Your task to perform on an android device: delete a single message in the gmail app Image 0: 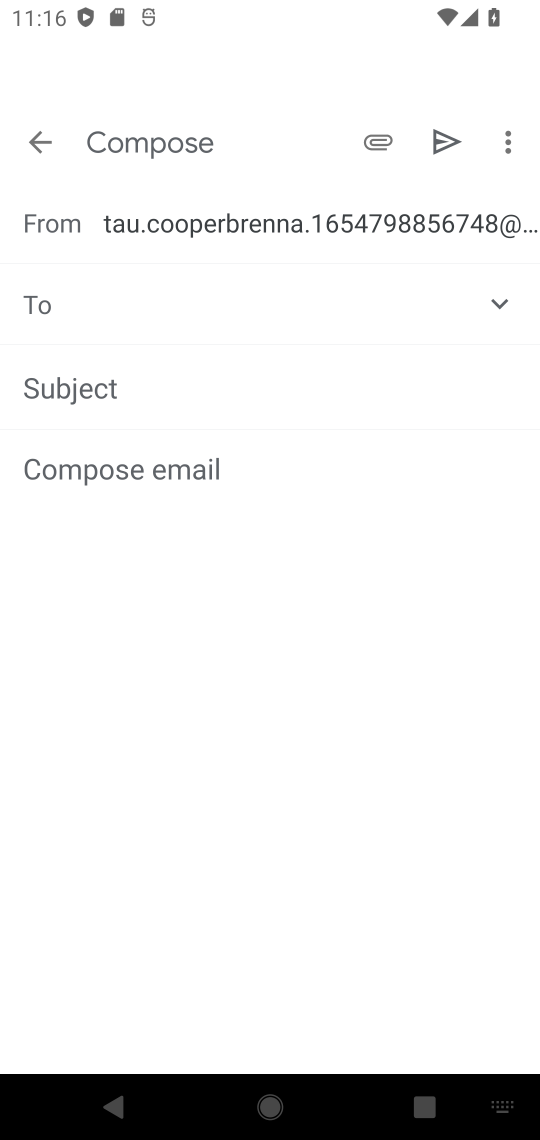
Step 0: press home button
Your task to perform on an android device: delete a single message in the gmail app Image 1: 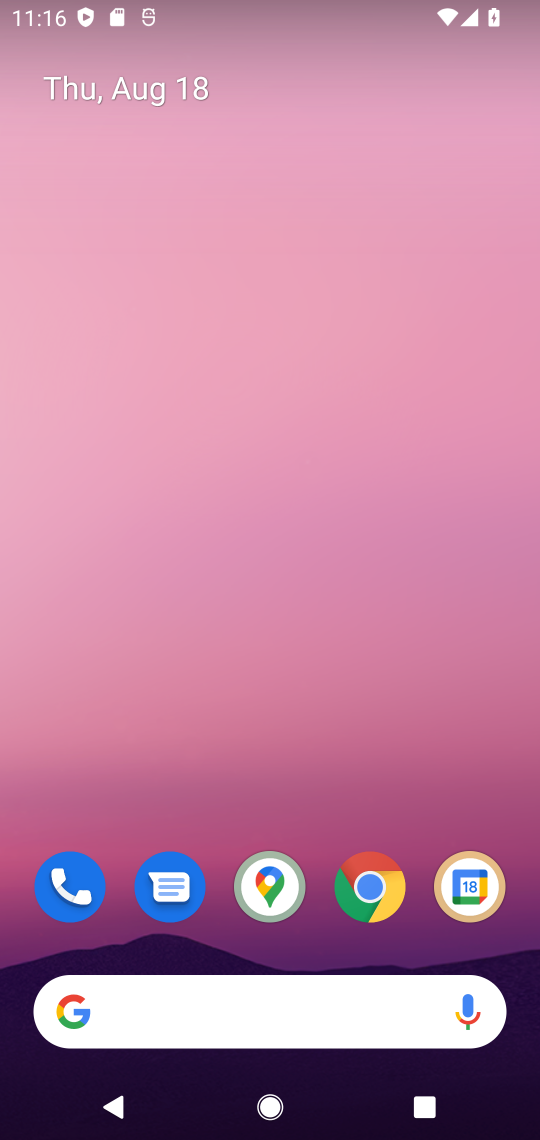
Step 1: drag from (81, 1065) to (286, 477)
Your task to perform on an android device: delete a single message in the gmail app Image 2: 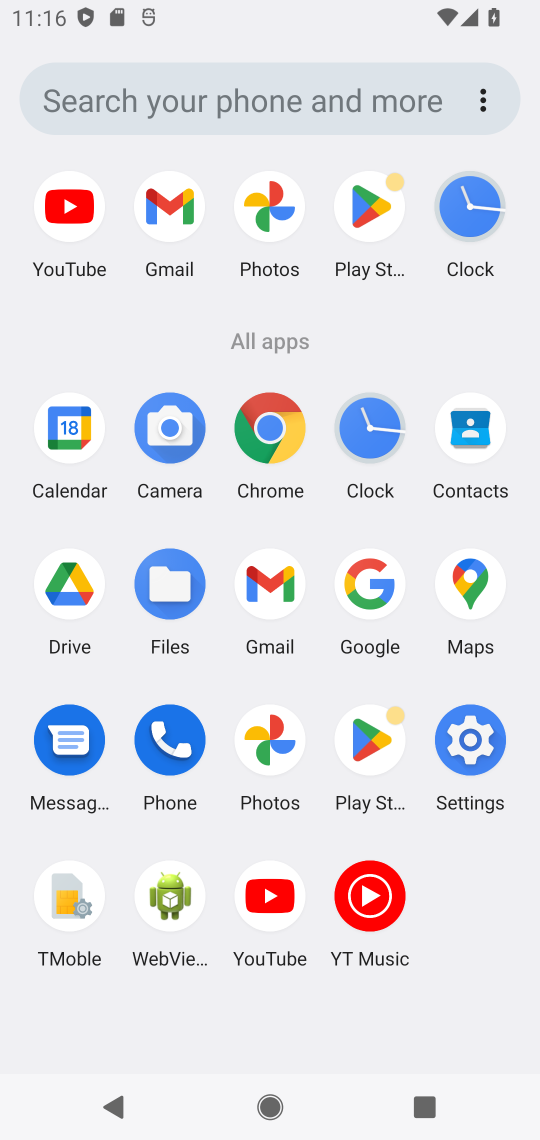
Step 2: click (155, 186)
Your task to perform on an android device: delete a single message in the gmail app Image 3: 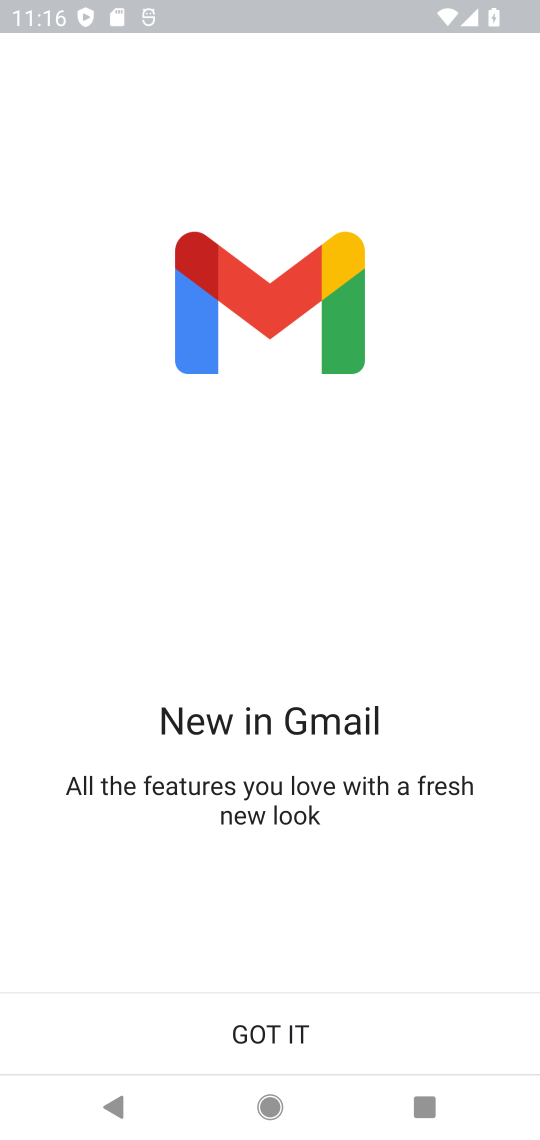
Step 3: click (283, 1035)
Your task to perform on an android device: delete a single message in the gmail app Image 4: 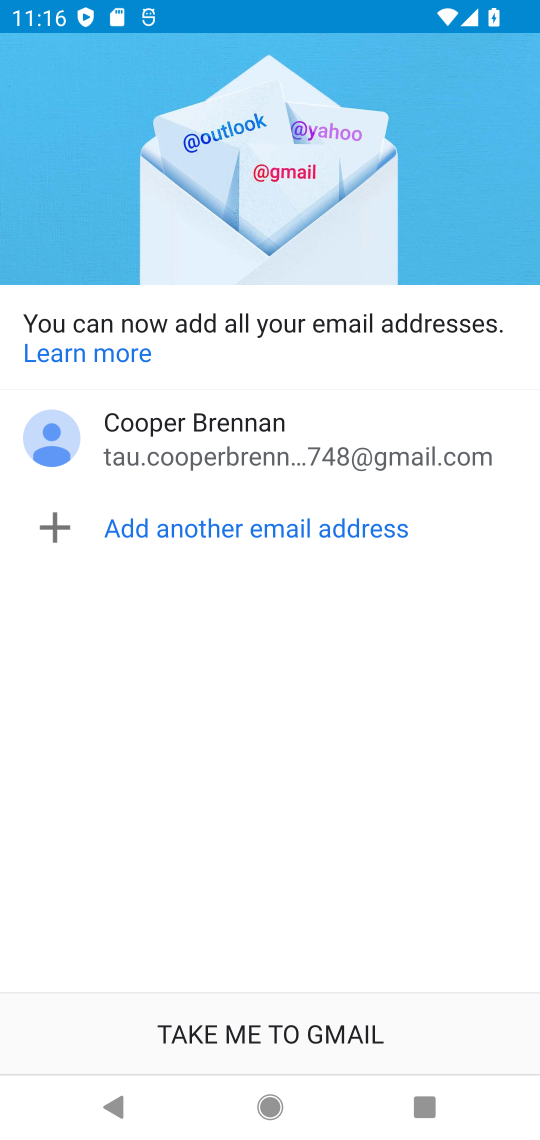
Step 4: click (261, 1029)
Your task to perform on an android device: delete a single message in the gmail app Image 5: 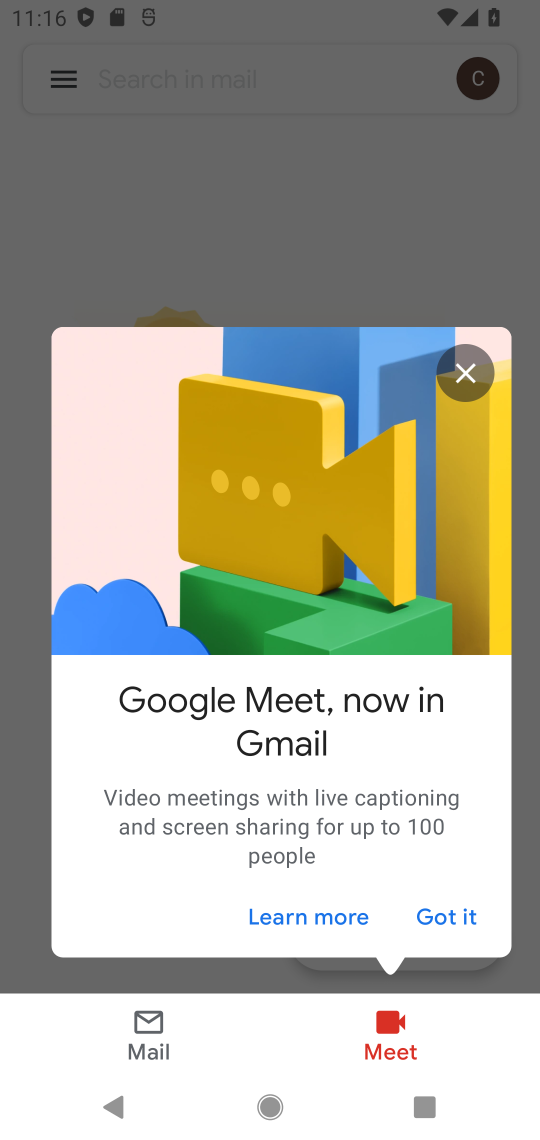
Step 5: click (458, 918)
Your task to perform on an android device: delete a single message in the gmail app Image 6: 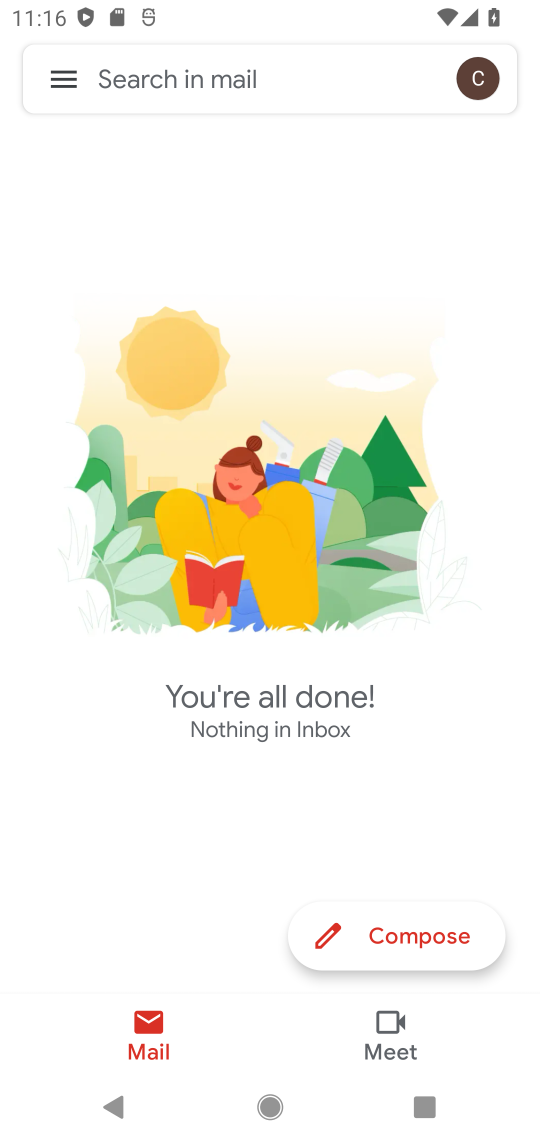
Step 6: click (122, 1035)
Your task to perform on an android device: delete a single message in the gmail app Image 7: 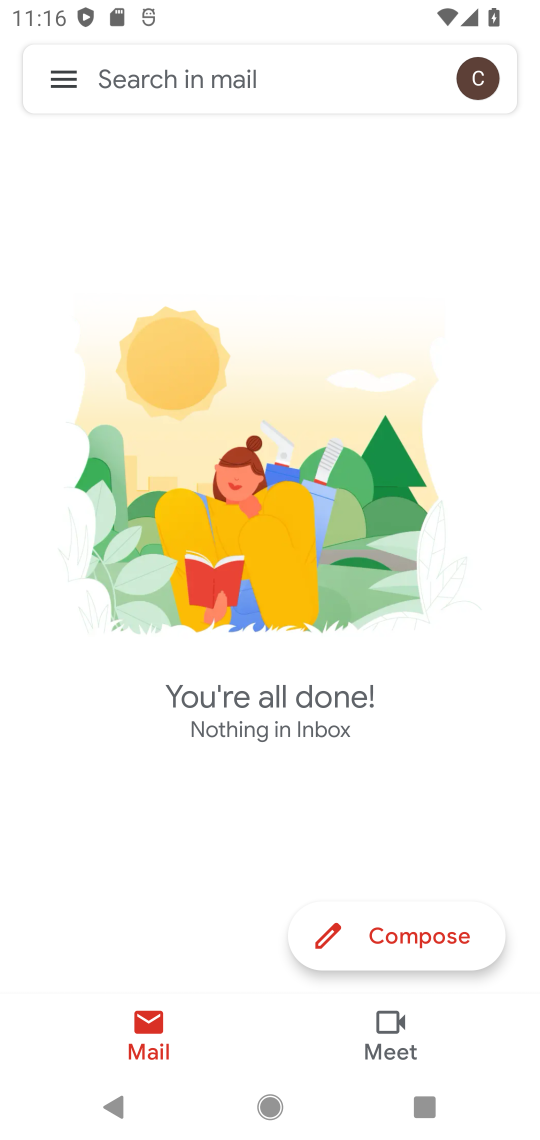
Step 7: click (77, 94)
Your task to perform on an android device: delete a single message in the gmail app Image 8: 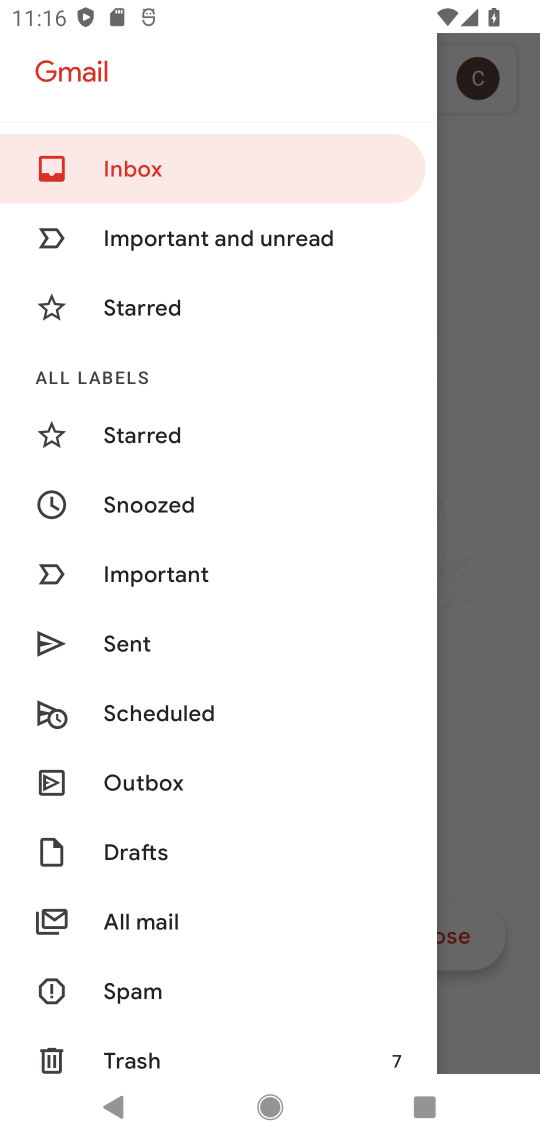
Step 8: drag from (293, 939) to (157, 409)
Your task to perform on an android device: delete a single message in the gmail app Image 9: 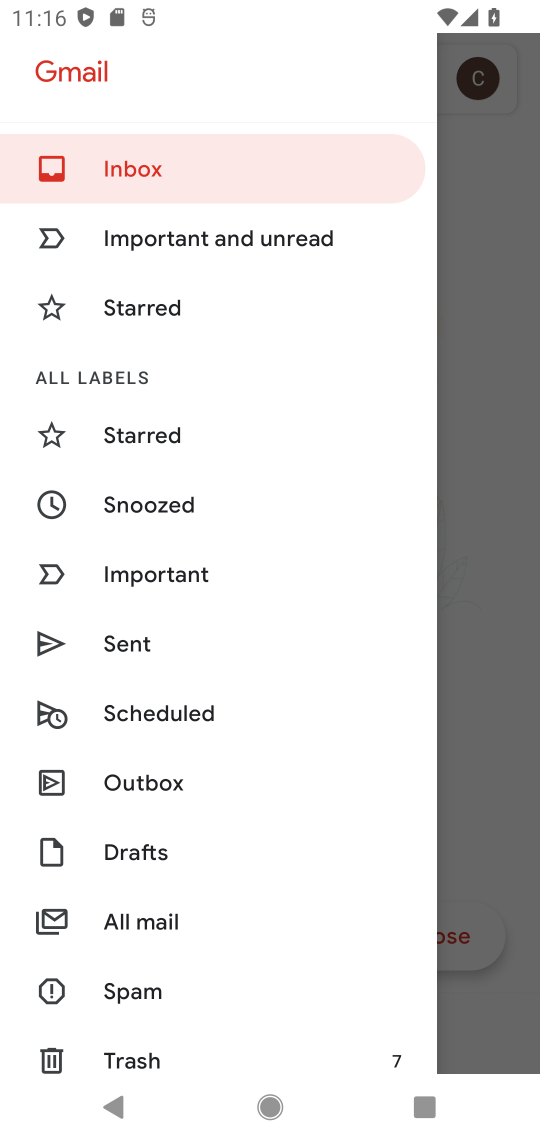
Step 9: drag from (288, 1005) to (236, 668)
Your task to perform on an android device: delete a single message in the gmail app Image 10: 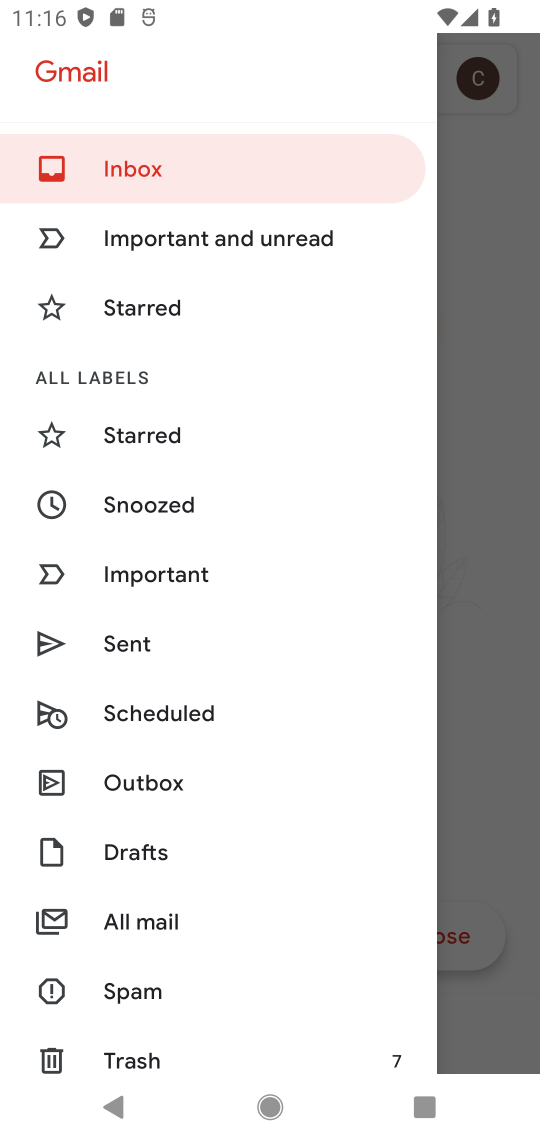
Step 10: drag from (315, 1021) to (257, 565)
Your task to perform on an android device: delete a single message in the gmail app Image 11: 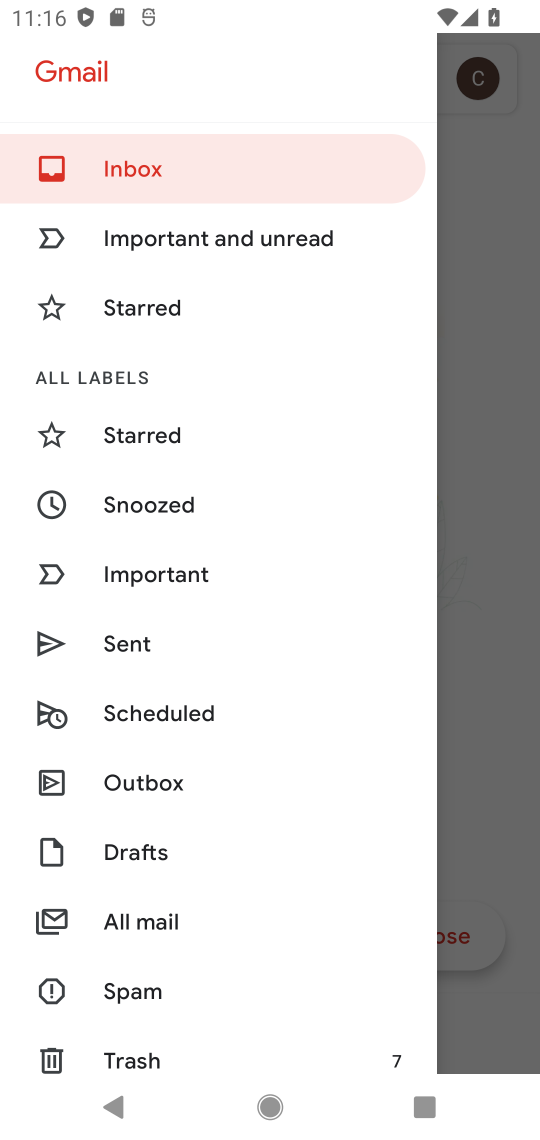
Step 11: click (187, 909)
Your task to perform on an android device: delete a single message in the gmail app Image 12: 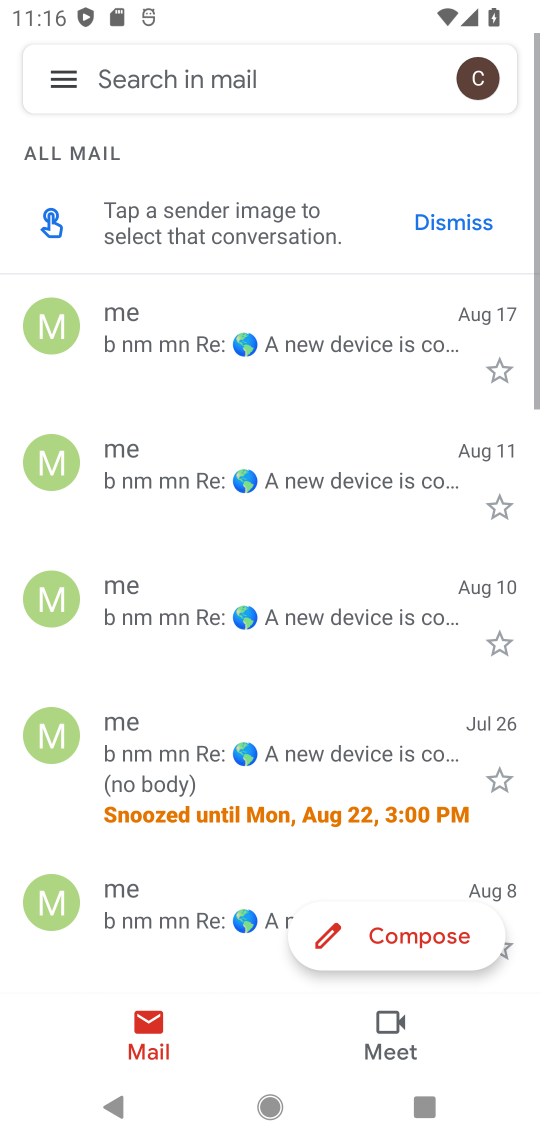
Step 12: click (139, 338)
Your task to perform on an android device: delete a single message in the gmail app Image 13: 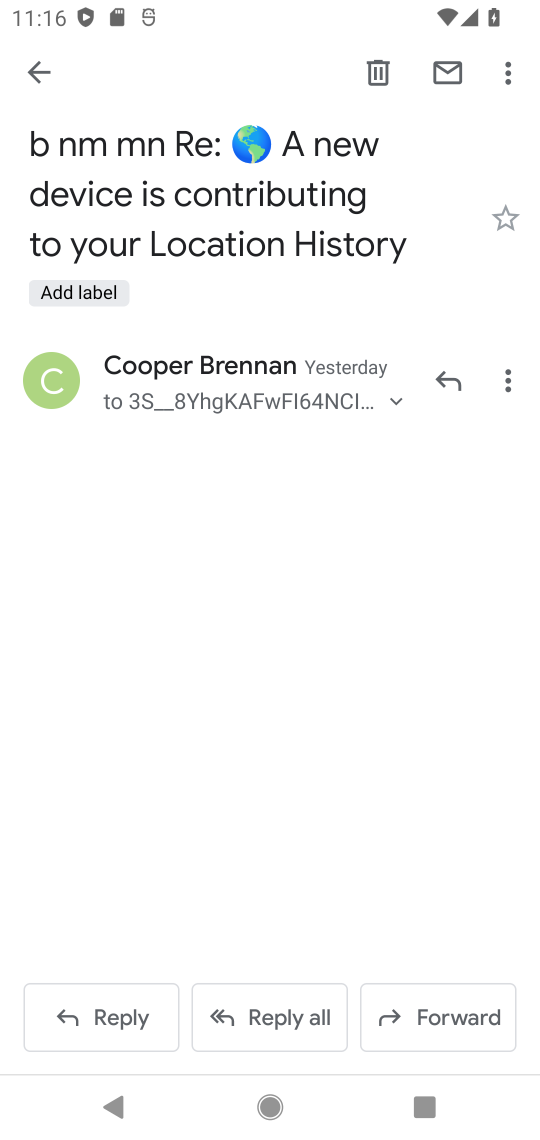
Step 13: click (382, 79)
Your task to perform on an android device: delete a single message in the gmail app Image 14: 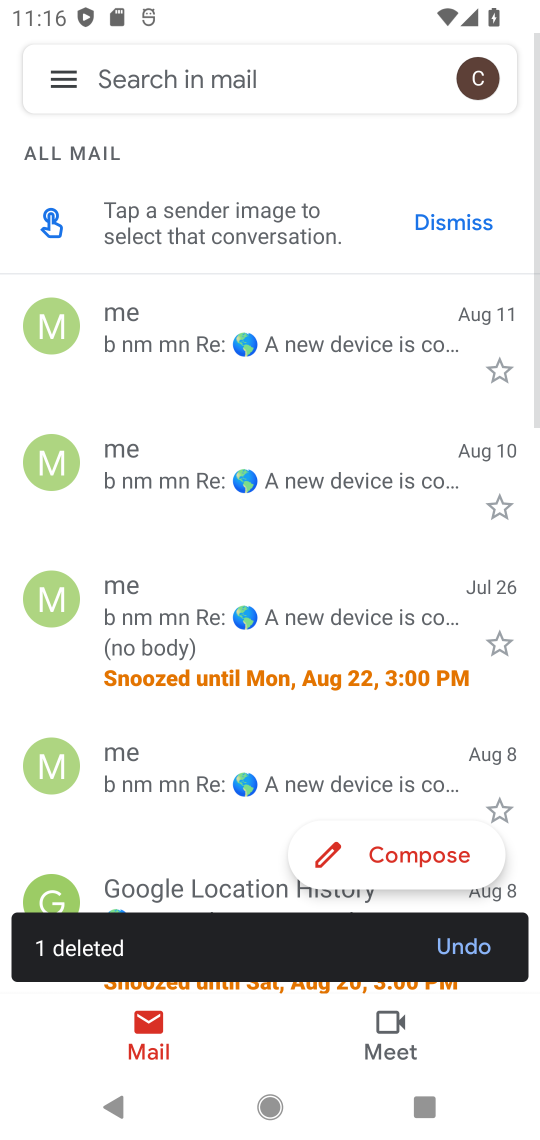
Step 14: task complete